Your task to perform on an android device: Open internet settings Image 0: 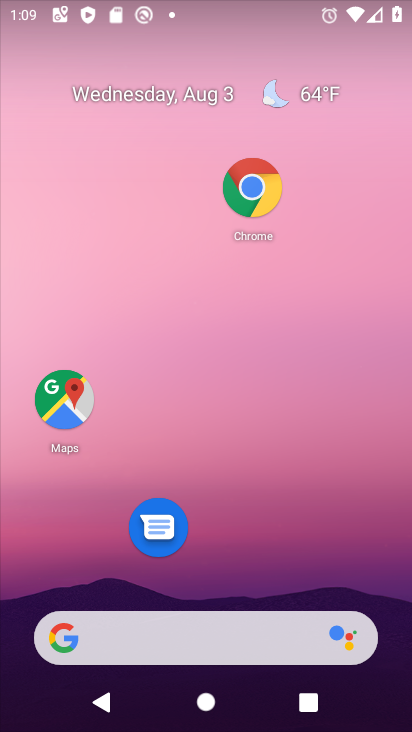
Step 0: drag from (204, 552) to (253, 18)
Your task to perform on an android device: Open internet settings Image 1: 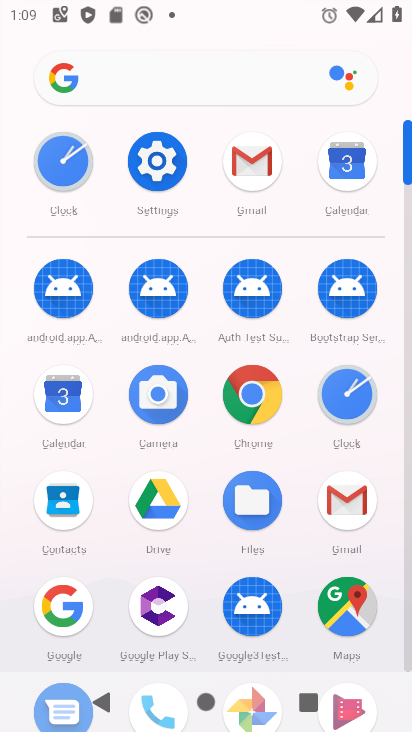
Step 1: click (158, 178)
Your task to perform on an android device: Open internet settings Image 2: 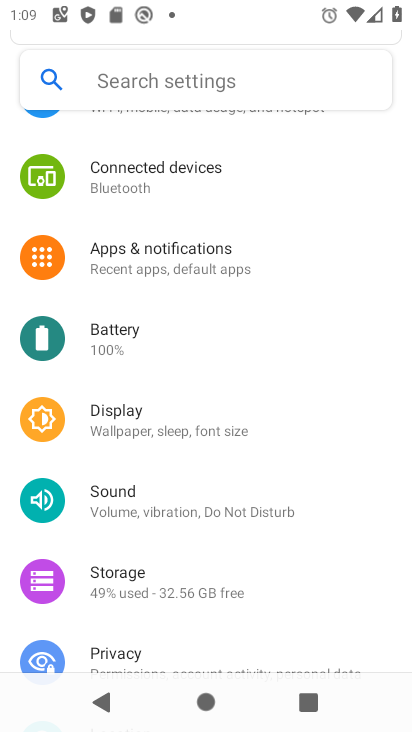
Step 2: drag from (221, 202) to (171, 671)
Your task to perform on an android device: Open internet settings Image 3: 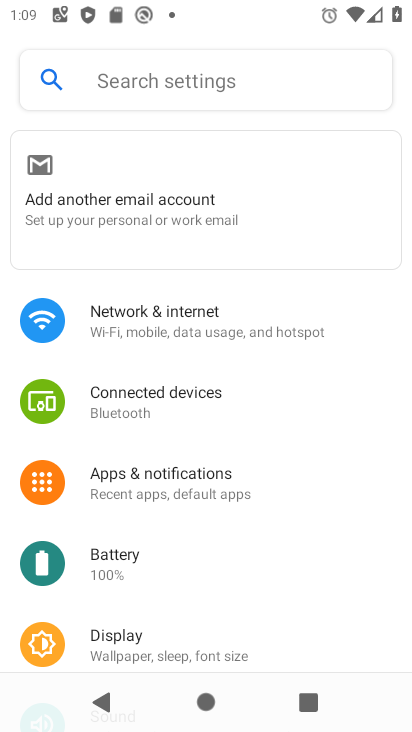
Step 3: click (166, 330)
Your task to perform on an android device: Open internet settings Image 4: 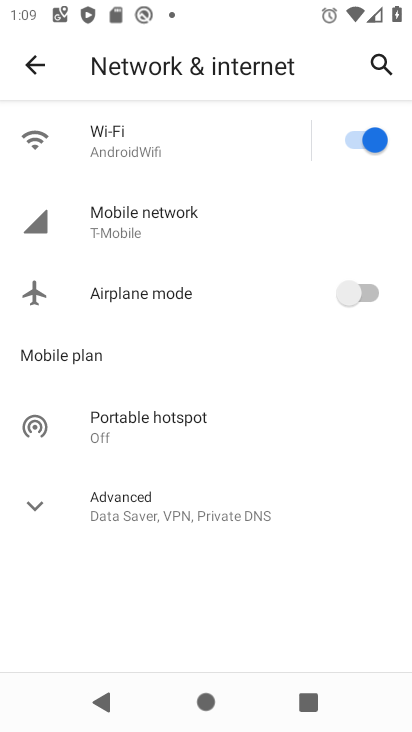
Step 4: task complete